Your task to perform on an android device: toggle improve location accuracy Image 0: 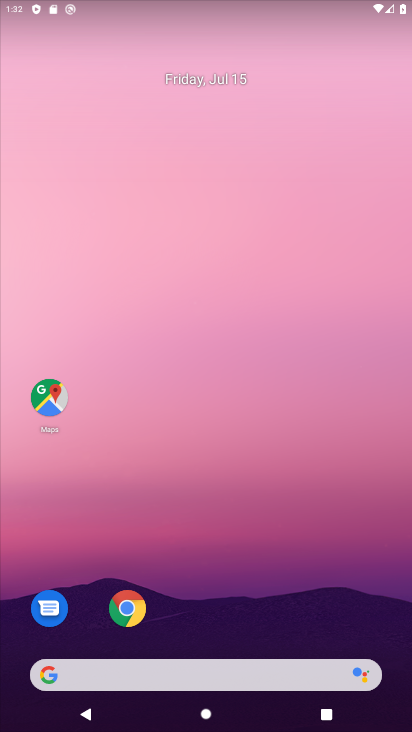
Step 0: drag from (199, 675) to (112, 2)
Your task to perform on an android device: toggle improve location accuracy Image 1: 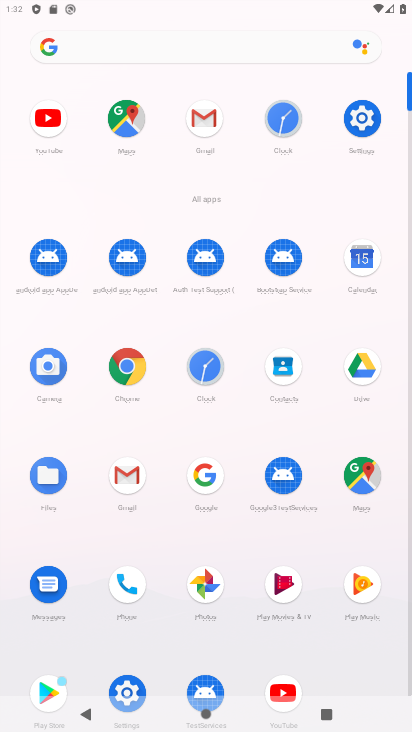
Step 1: click (364, 116)
Your task to perform on an android device: toggle improve location accuracy Image 2: 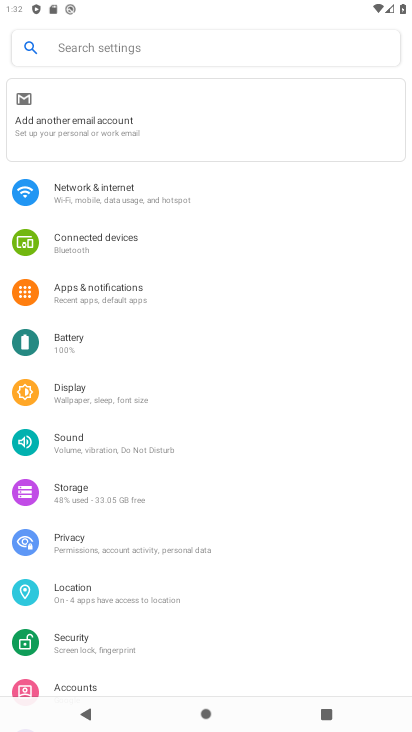
Step 2: click (106, 605)
Your task to perform on an android device: toggle improve location accuracy Image 3: 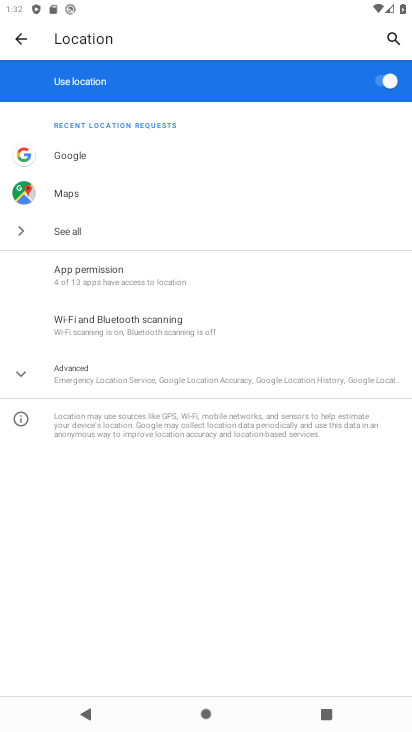
Step 3: click (103, 387)
Your task to perform on an android device: toggle improve location accuracy Image 4: 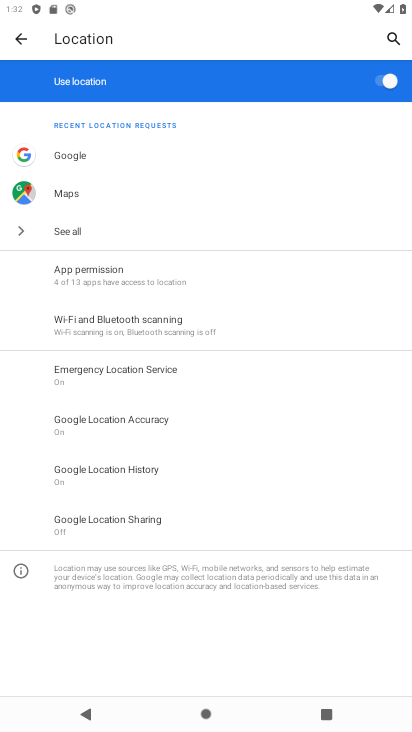
Step 4: click (136, 430)
Your task to perform on an android device: toggle improve location accuracy Image 5: 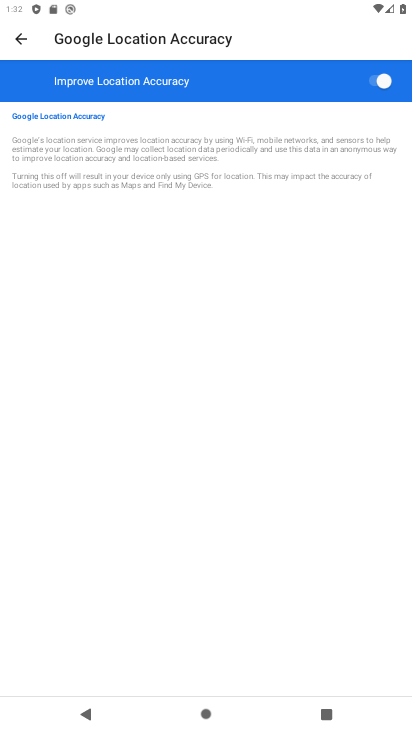
Step 5: click (389, 87)
Your task to perform on an android device: toggle improve location accuracy Image 6: 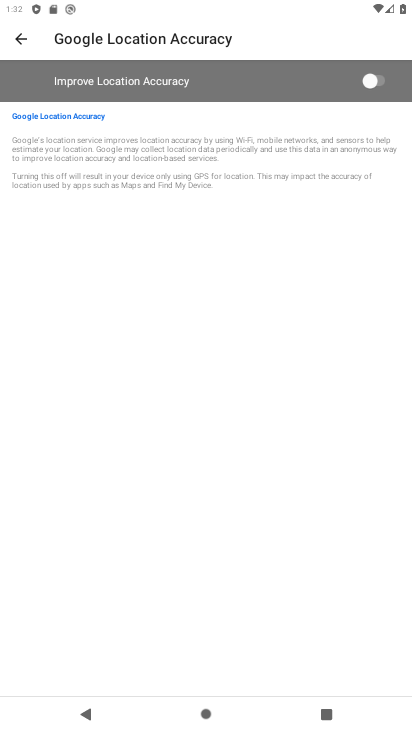
Step 6: task complete